Your task to perform on an android device: Open Wikipedia Image 0: 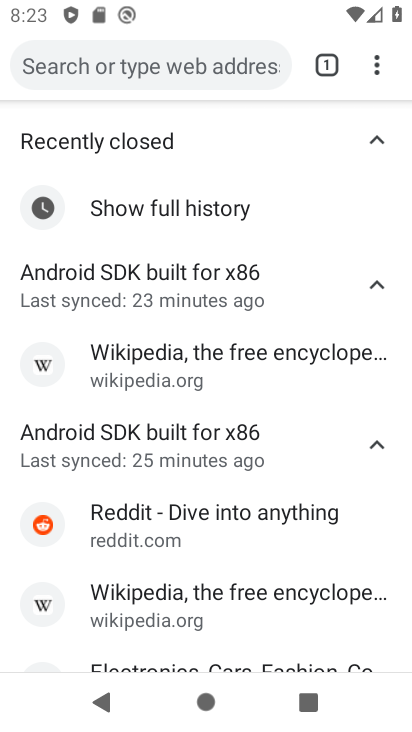
Step 0: click (327, 64)
Your task to perform on an android device: Open Wikipedia Image 1: 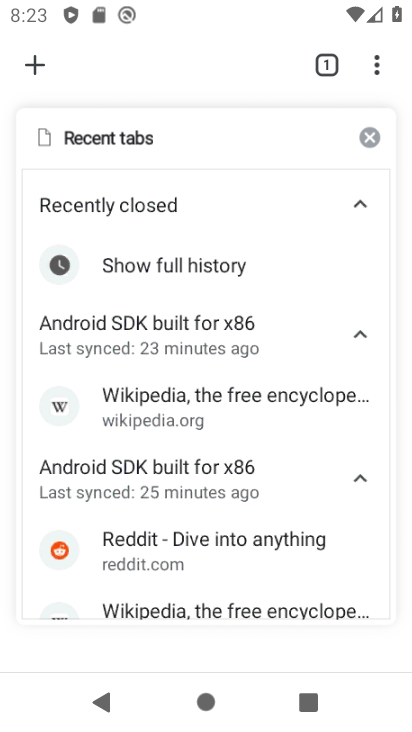
Step 1: click (9, 72)
Your task to perform on an android device: Open Wikipedia Image 2: 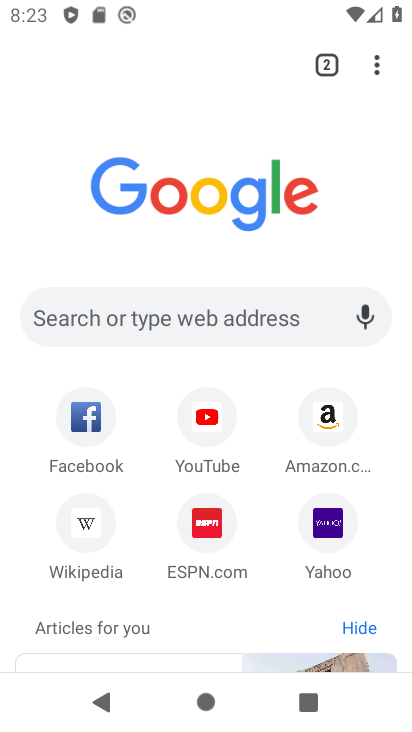
Step 2: click (75, 526)
Your task to perform on an android device: Open Wikipedia Image 3: 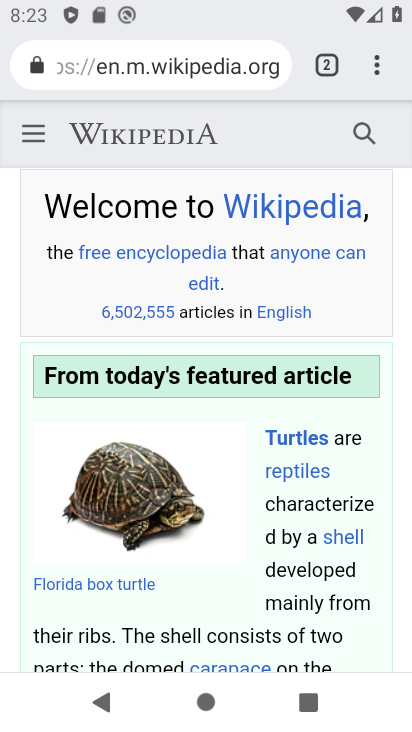
Step 3: task complete